Your task to perform on an android device: add a label to a message in the gmail app Image 0: 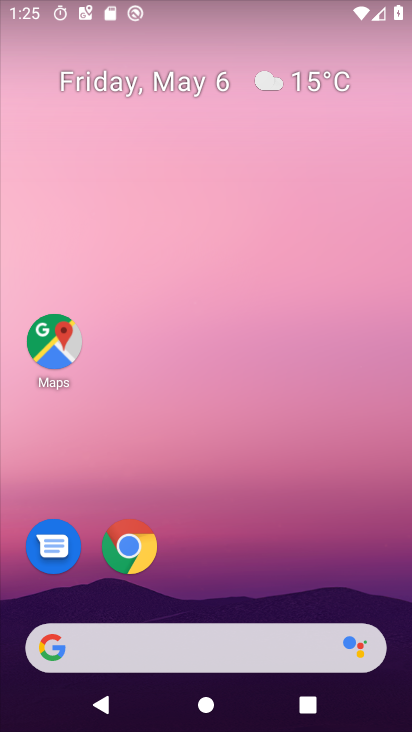
Step 0: drag from (296, 593) to (296, 125)
Your task to perform on an android device: add a label to a message in the gmail app Image 1: 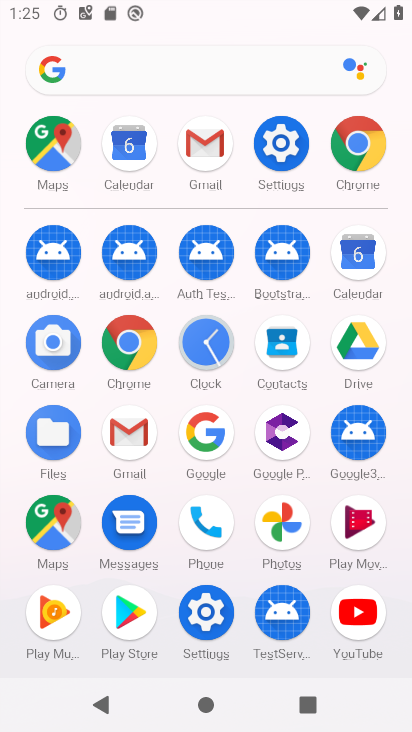
Step 1: click (141, 441)
Your task to perform on an android device: add a label to a message in the gmail app Image 2: 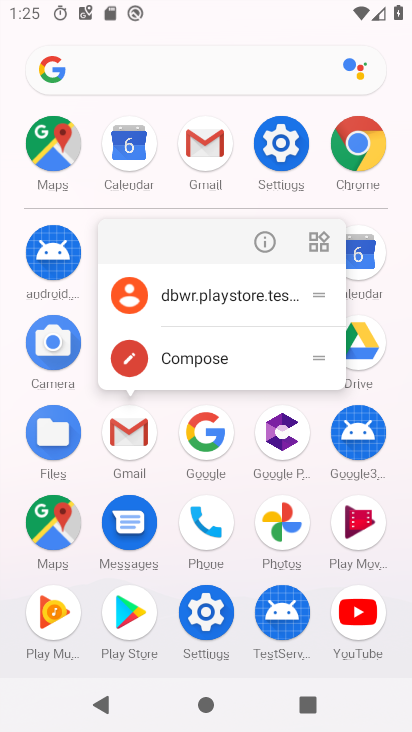
Step 2: click (125, 446)
Your task to perform on an android device: add a label to a message in the gmail app Image 3: 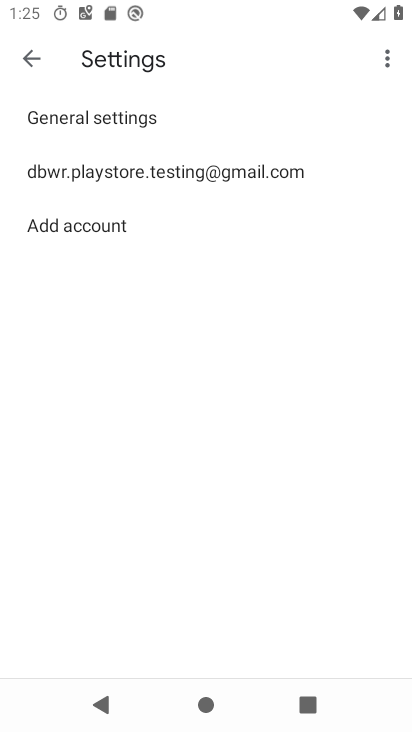
Step 3: click (38, 60)
Your task to perform on an android device: add a label to a message in the gmail app Image 4: 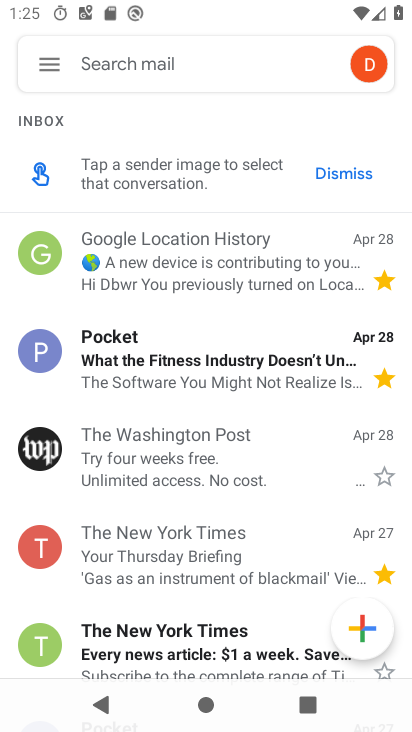
Step 4: click (295, 443)
Your task to perform on an android device: add a label to a message in the gmail app Image 5: 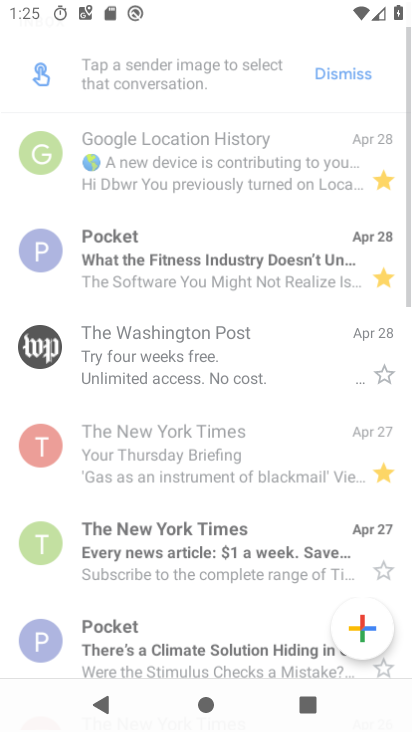
Step 5: click (387, 57)
Your task to perform on an android device: add a label to a message in the gmail app Image 6: 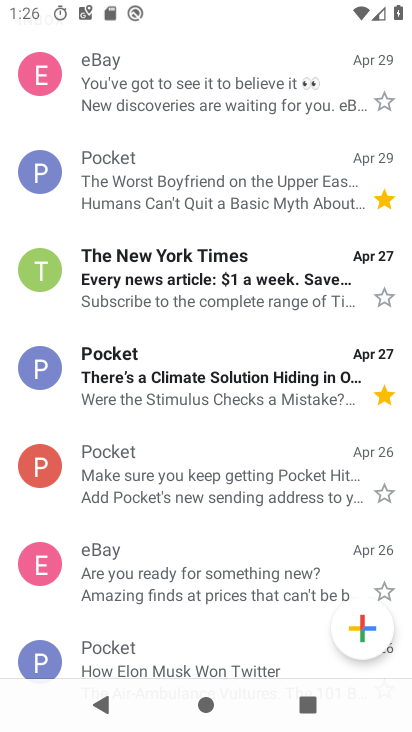
Step 6: click (328, 188)
Your task to perform on an android device: add a label to a message in the gmail app Image 7: 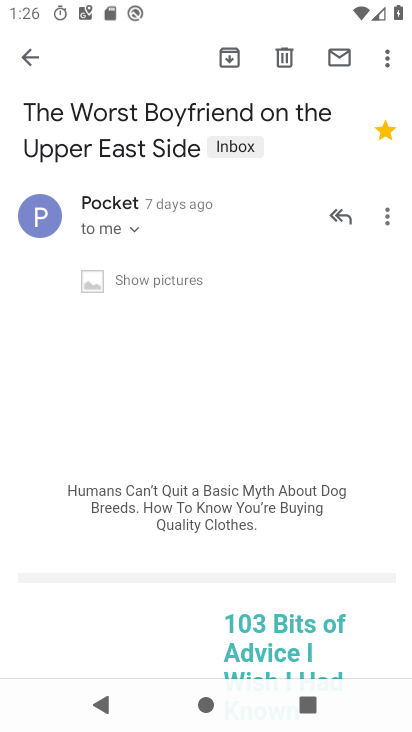
Step 7: click (387, 58)
Your task to perform on an android device: add a label to a message in the gmail app Image 8: 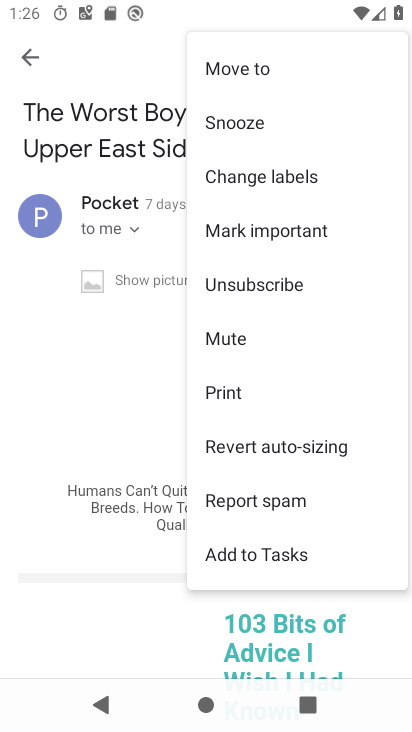
Step 8: click (263, 172)
Your task to perform on an android device: add a label to a message in the gmail app Image 9: 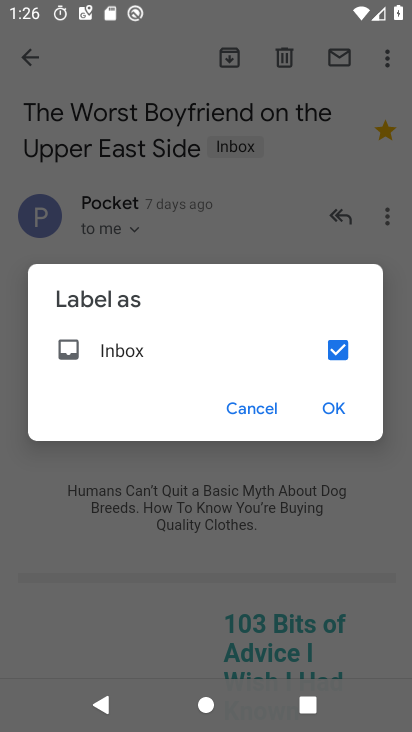
Step 9: click (334, 342)
Your task to perform on an android device: add a label to a message in the gmail app Image 10: 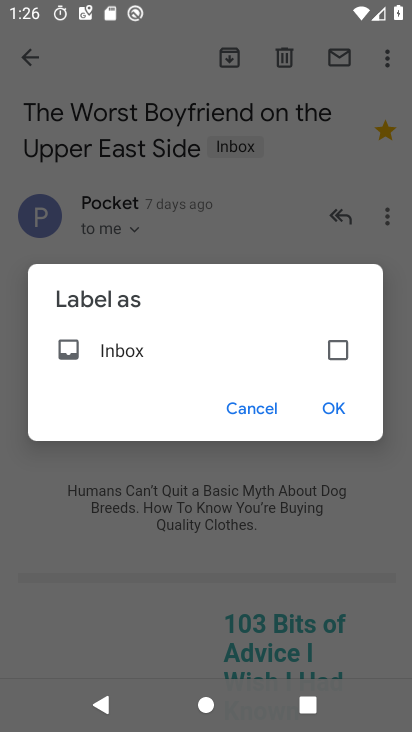
Step 10: click (337, 412)
Your task to perform on an android device: add a label to a message in the gmail app Image 11: 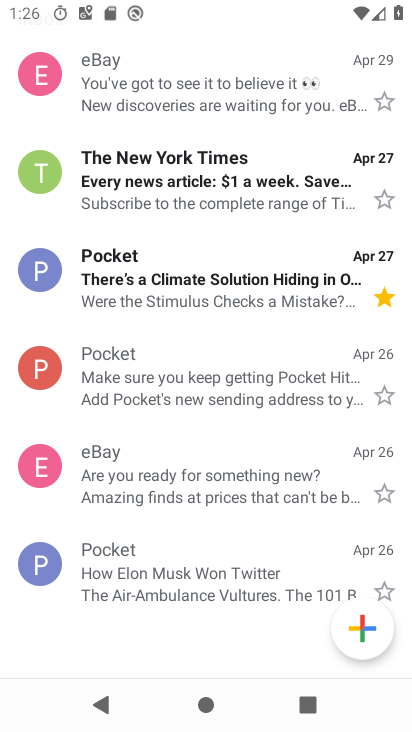
Step 11: task complete